Your task to perform on an android device: Go to internet settings Image 0: 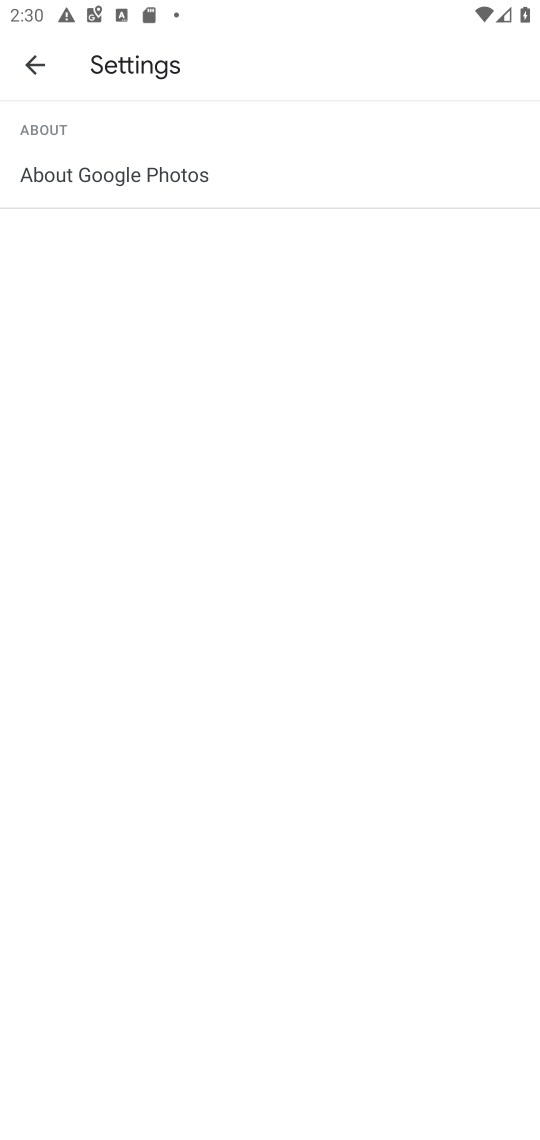
Step 0: press home button
Your task to perform on an android device: Go to internet settings Image 1: 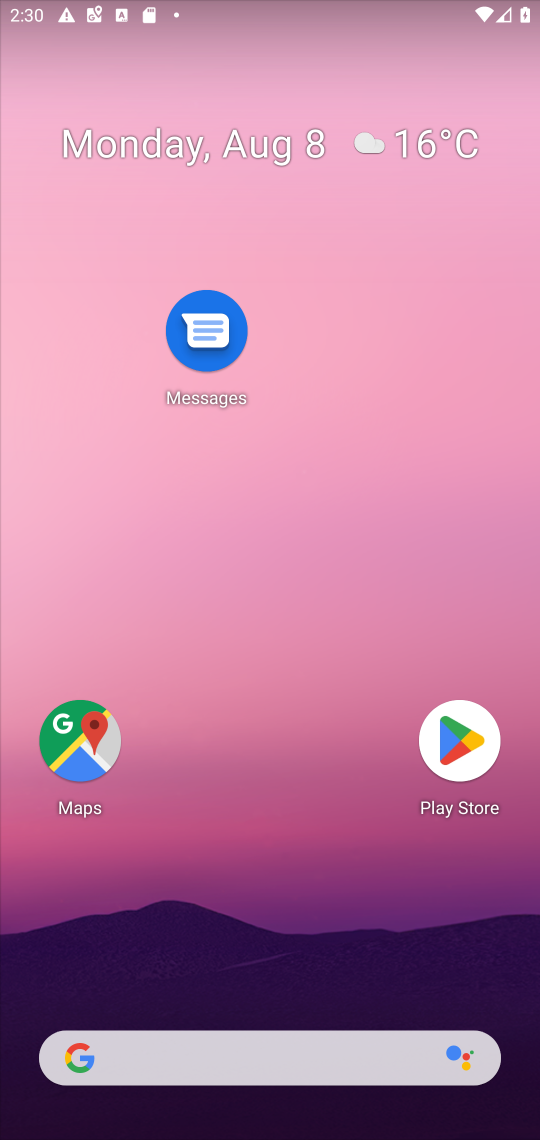
Step 1: drag from (305, 1067) to (274, 21)
Your task to perform on an android device: Go to internet settings Image 2: 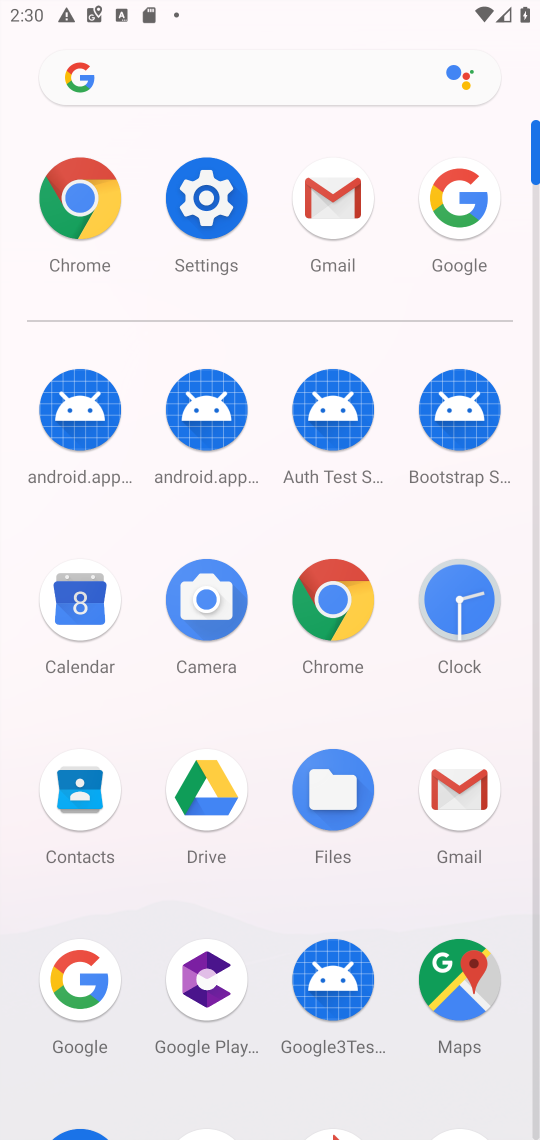
Step 2: click (219, 226)
Your task to perform on an android device: Go to internet settings Image 3: 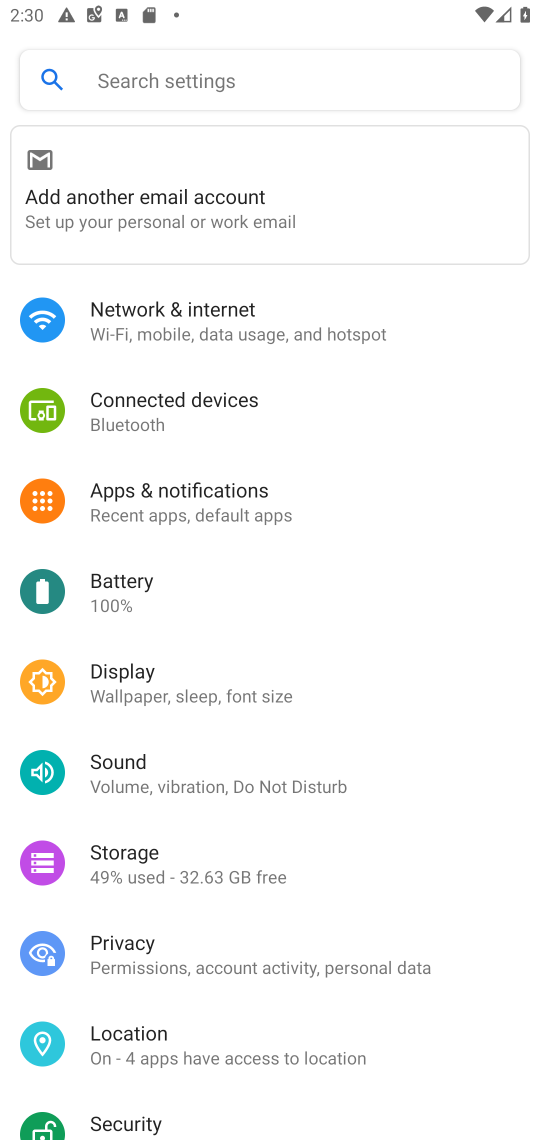
Step 3: click (205, 304)
Your task to perform on an android device: Go to internet settings Image 4: 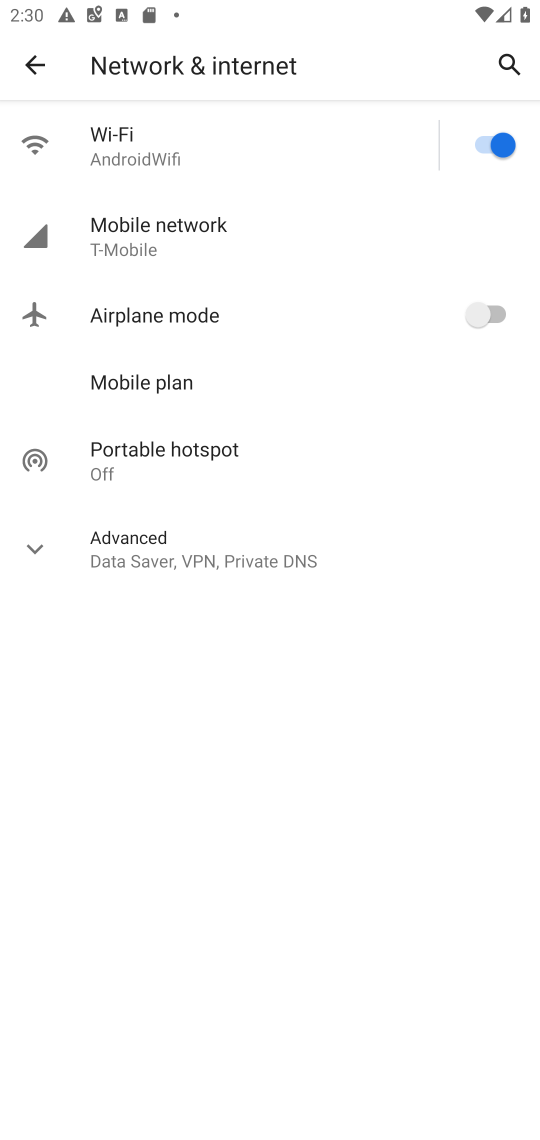
Step 4: click (214, 246)
Your task to perform on an android device: Go to internet settings Image 5: 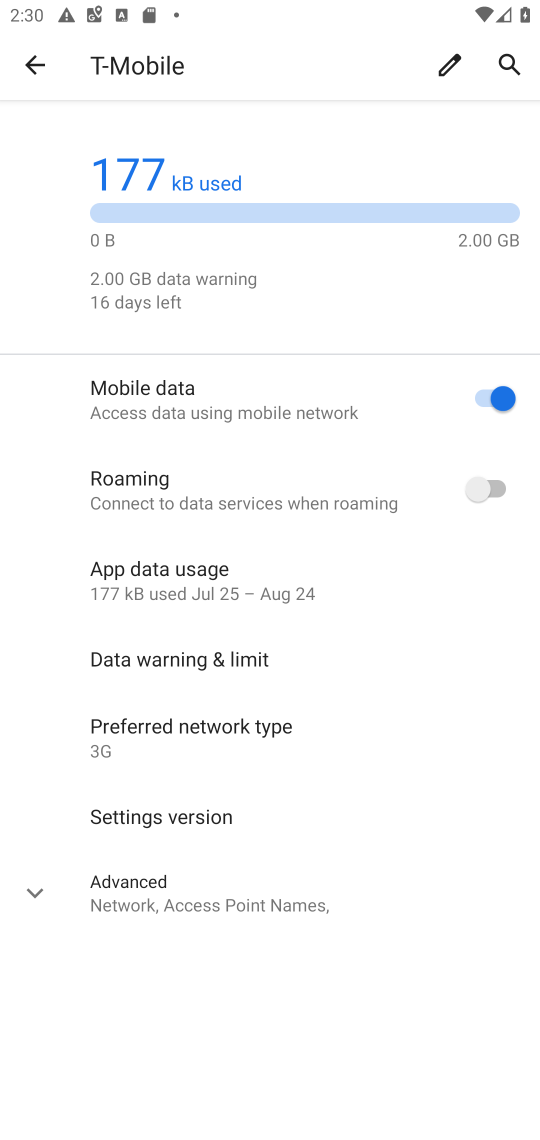
Step 5: task complete